Your task to perform on an android device: turn off javascript in the chrome app Image 0: 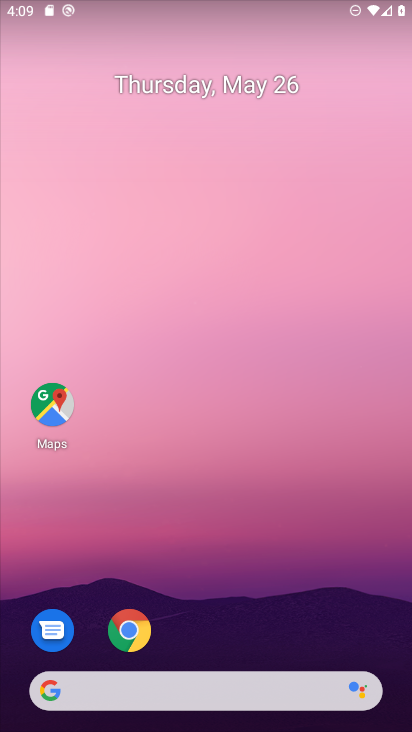
Step 0: click (131, 628)
Your task to perform on an android device: turn off javascript in the chrome app Image 1: 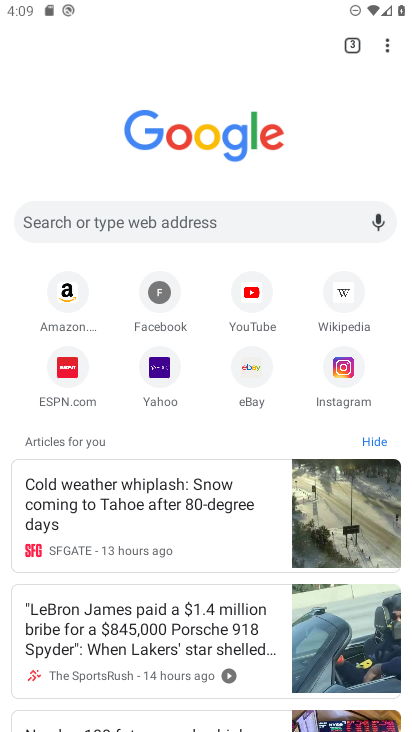
Step 1: click (388, 47)
Your task to perform on an android device: turn off javascript in the chrome app Image 2: 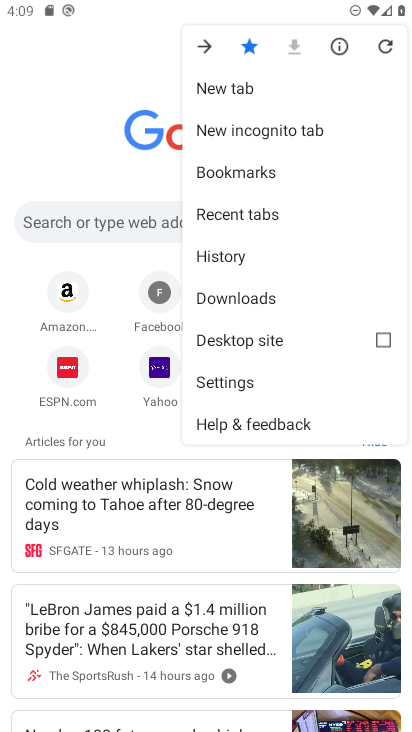
Step 2: click (236, 387)
Your task to perform on an android device: turn off javascript in the chrome app Image 3: 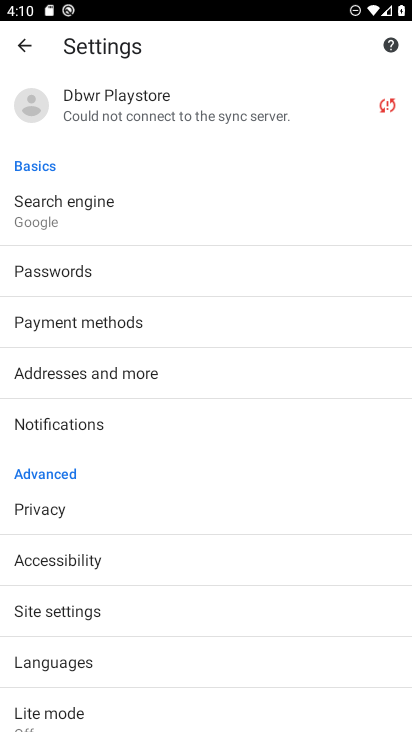
Step 3: click (74, 607)
Your task to perform on an android device: turn off javascript in the chrome app Image 4: 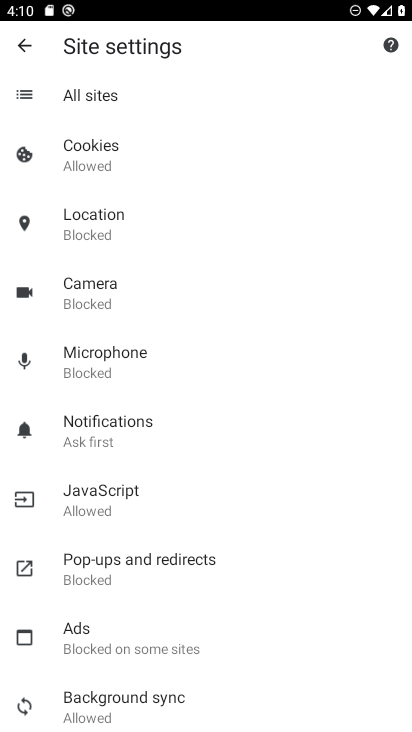
Step 4: click (115, 499)
Your task to perform on an android device: turn off javascript in the chrome app Image 5: 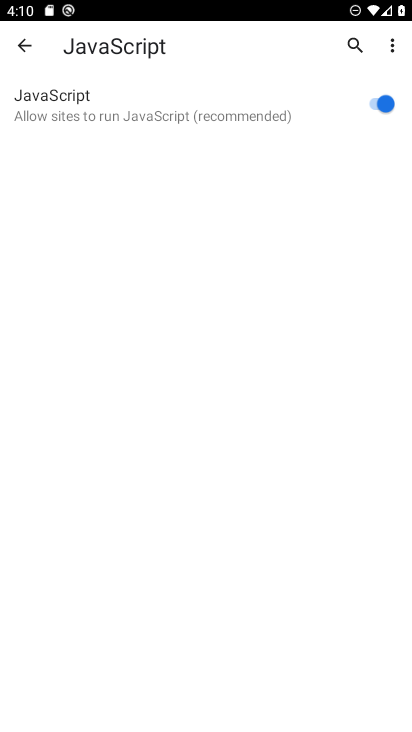
Step 5: click (375, 101)
Your task to perform on an android device: turn off javascript in the chrome app Image 6: 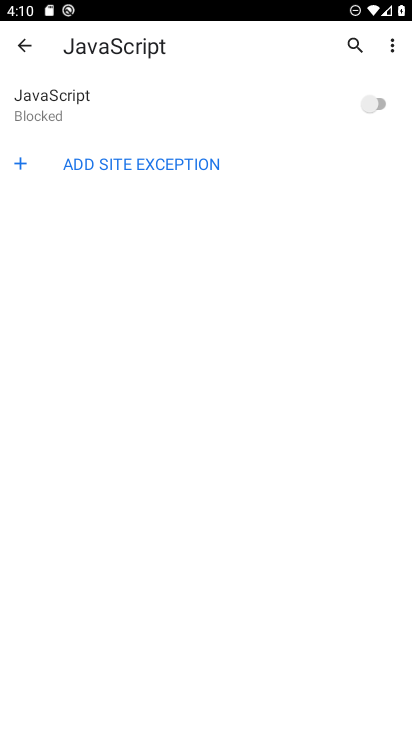
Step 6: task complete